Your task to perform on an android device: open app "Viber Messenger" (install if not already installed), go to login, and select forgot password Image 0: 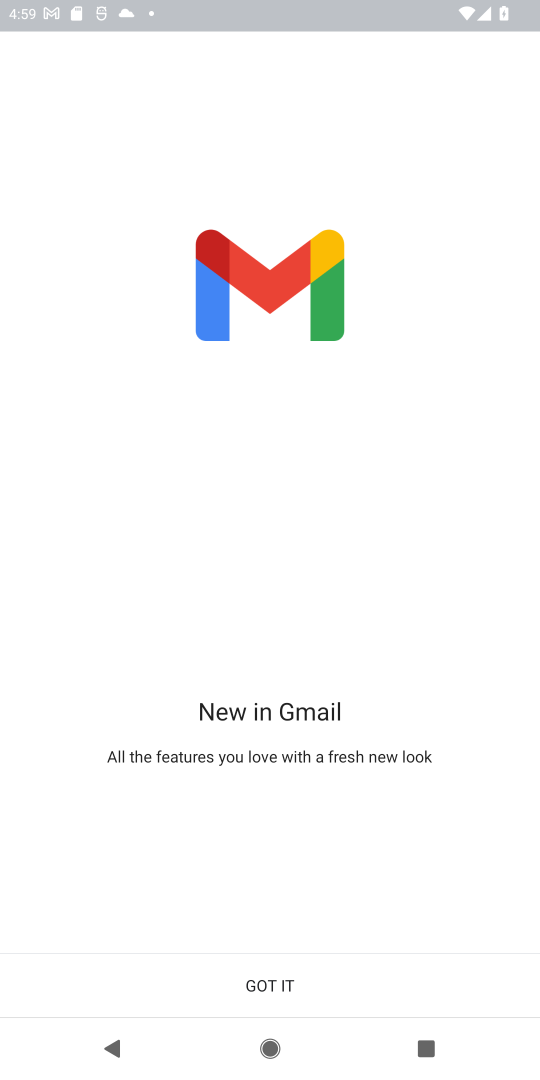
Step 0: press home button
Your task to perform on an android device: open app "Viber Messenger" (install if not already installed), go to login, and select forgot password Image 1: 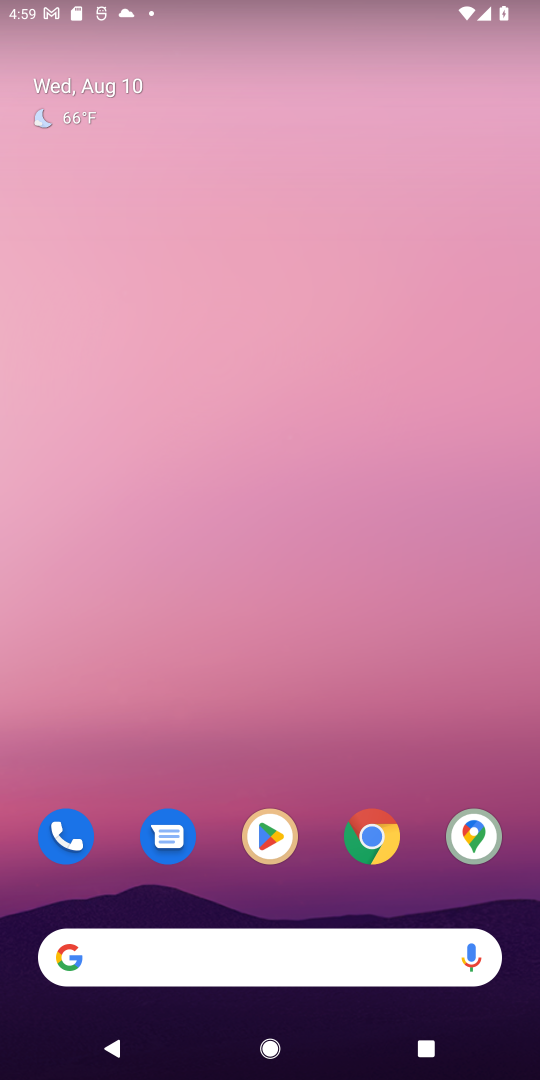
Step 1: drag from (223, 887) to (290, 263)
Your task to perform on an android device: open app "Viber Messenger" (install if not already installed), go to login, and select forgot password Image 2: 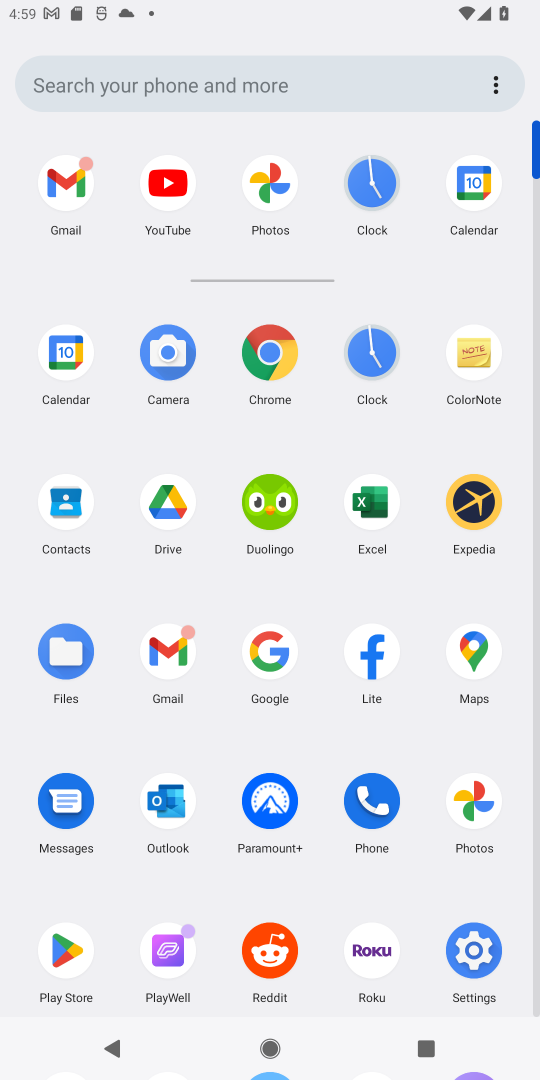
Step 2: click (70, 950)
Your task to perform on an android device: open app "Viber Messenger" (install if not already installed), go to login, and select forgot password Image 3: 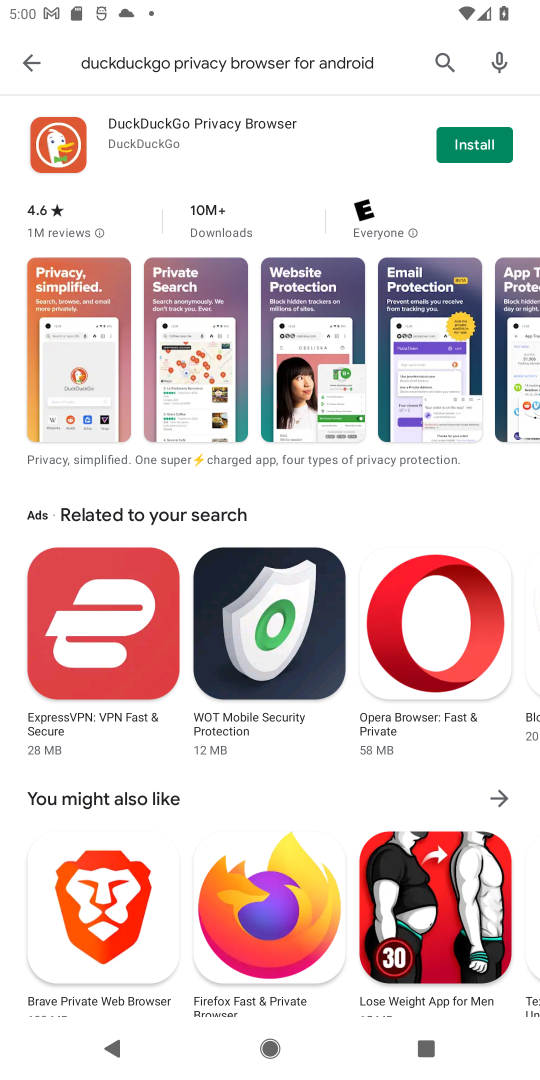
Step 3: click (49, 72)
Your task to perform on an android device: open app "Viber Messenger" (install if not already installed), go to login, and select forgot password Image 4: 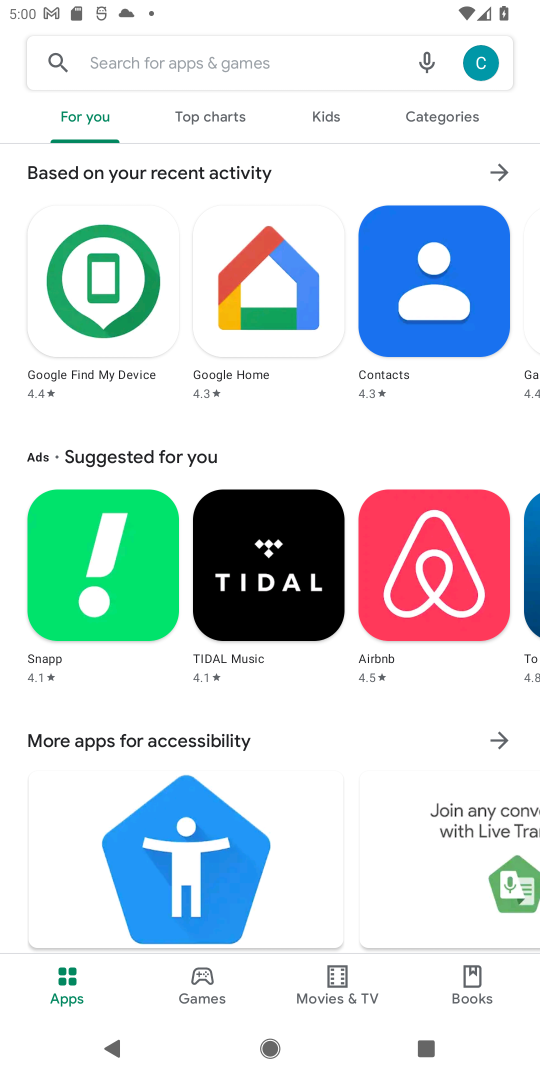
Step 4: click (266, 54)
Your task to perform on an android device: open app "Viber Messenger" (install if not already installed), go to login, and select forgot password Image 5: 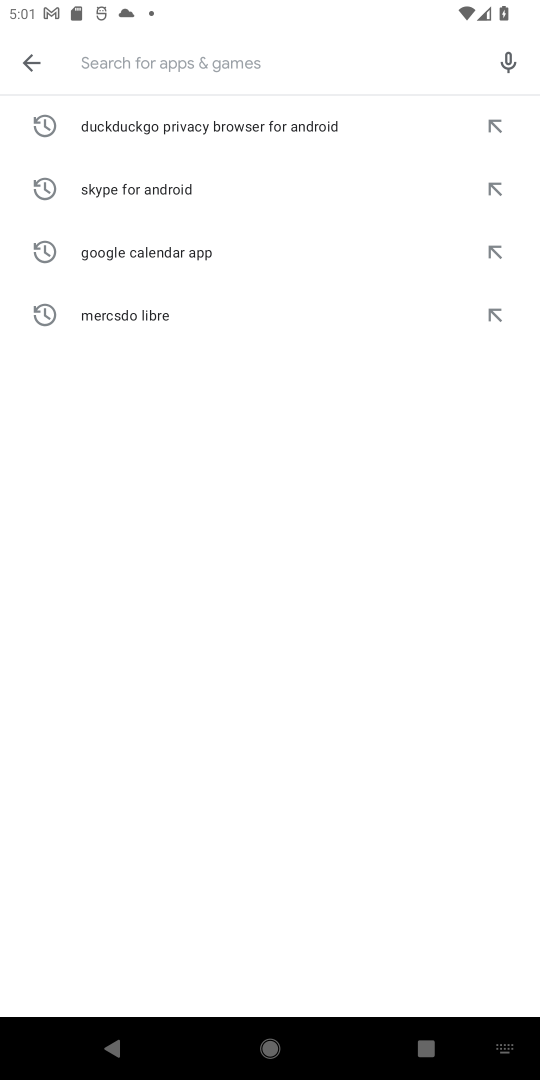
Step 5: click (239, 54)
Your task to perform on an android device: open app "Viber Messenger" (install if not already installed), go to login, and select forgot password Image 6: 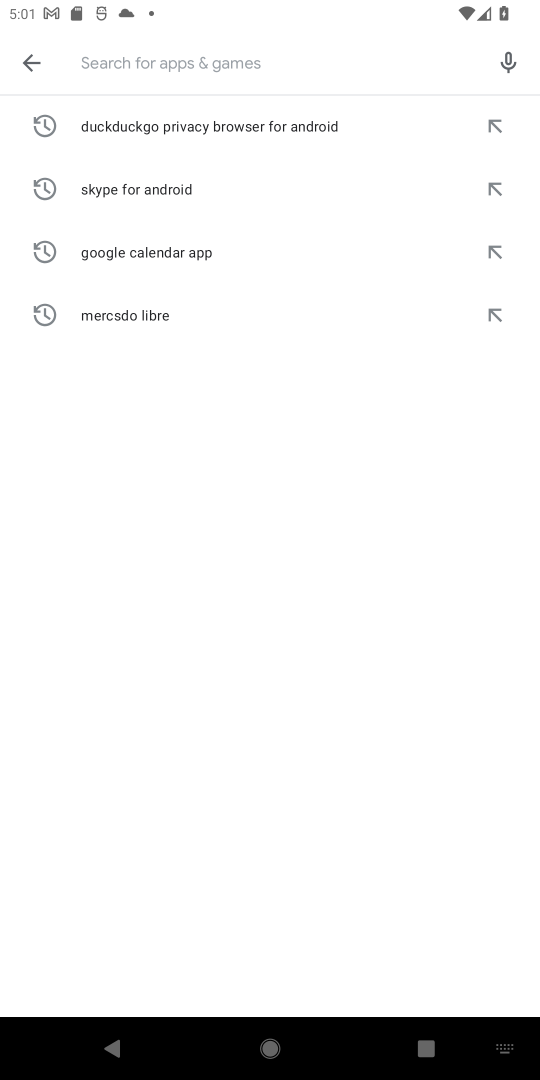
Step 6: type "Viber Messenge"
Your task to perform on an android device: open app "Viber Messenger" (install if not already installed), go to login, and select forgot password Image 7: 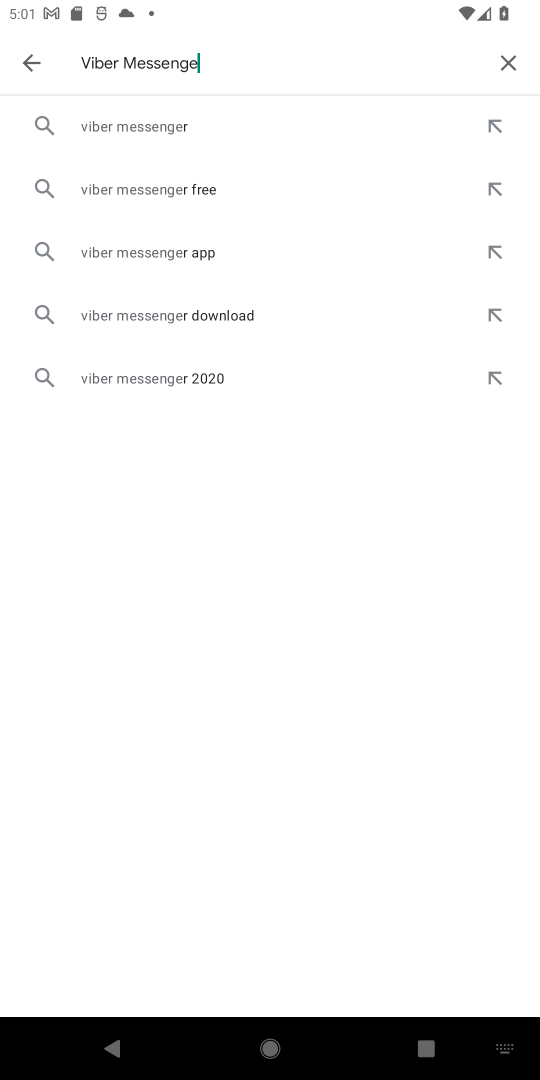
Step 7: click (118, 123)
Your task to perform on an android device: open app "Viber Messenger" (install if not already installed), go to login, and select forgot password Image 8: 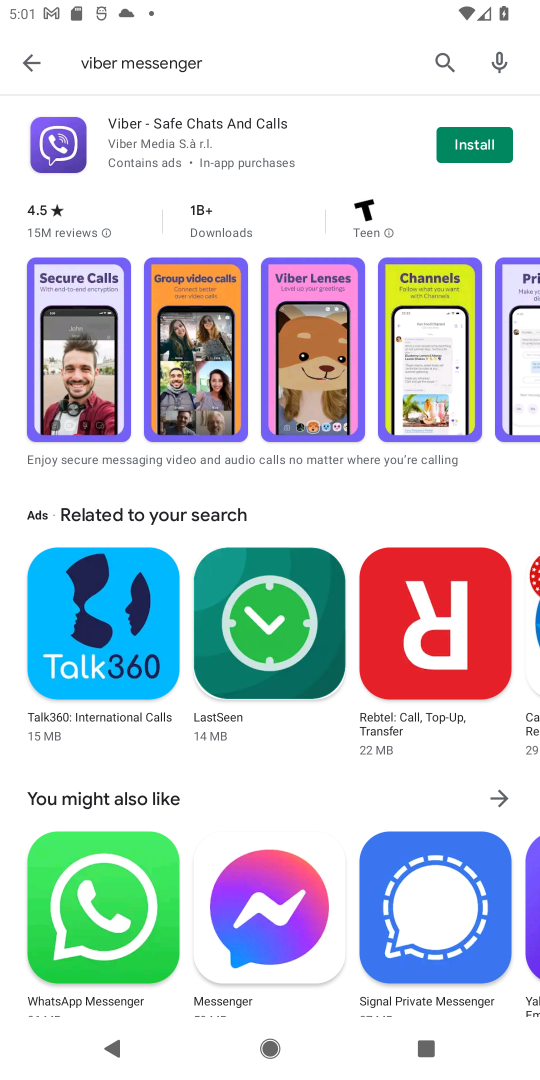
Step 8: click (476, 139)
Your task to perform on an android device: open app "Viber Messenger" (install if not already installed), go to login, and select forgot password Image 9: 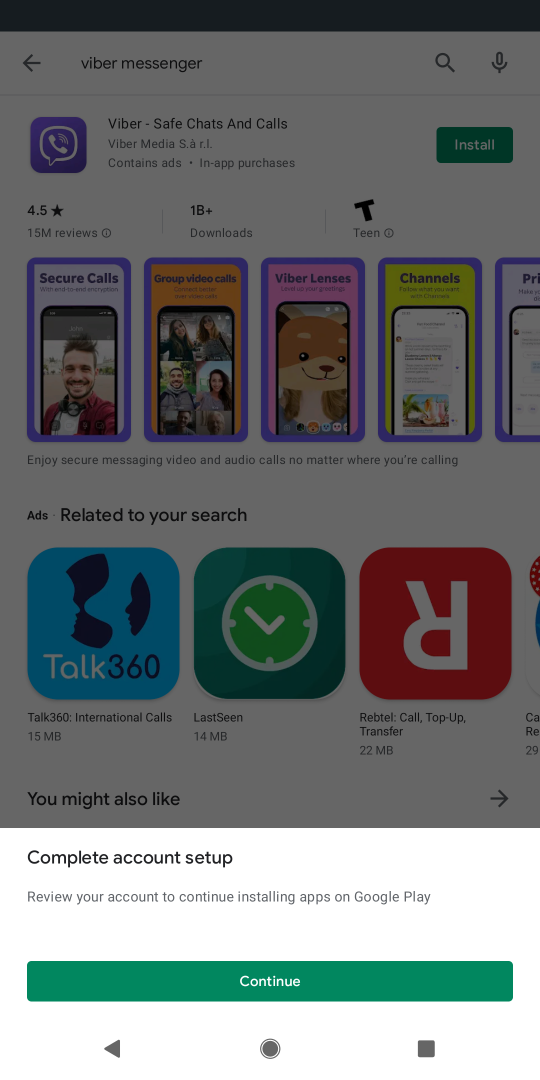
Step 9: click (202, 966)
Your task to perform on an android device: open app "Viber Messenger" (install if not already installed), go to login, and select forgot password Image 10: 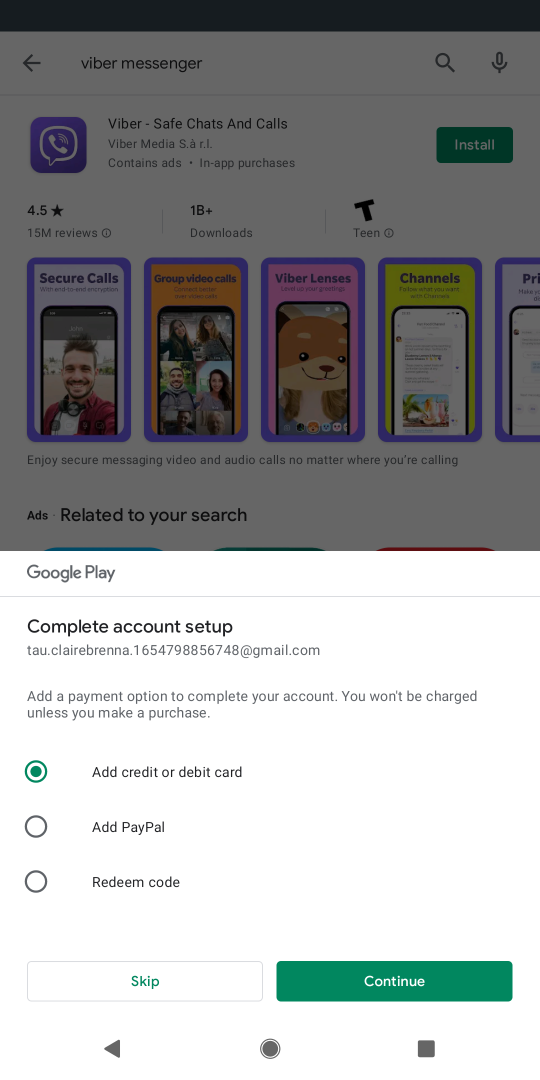
Step 10: task complete